Your task to perform on an android device: Open calendar and show me the fourth week of next month Image 0: 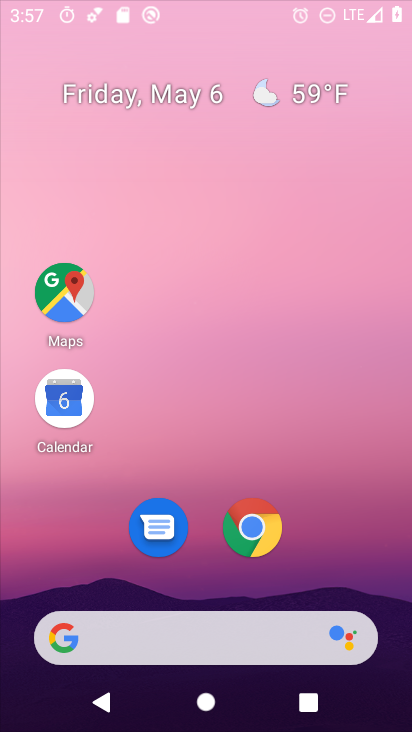
Step 0: click (283, 119)
Your task to perform on an android device: Open calendar and show me the fourth week of next month Image 1: 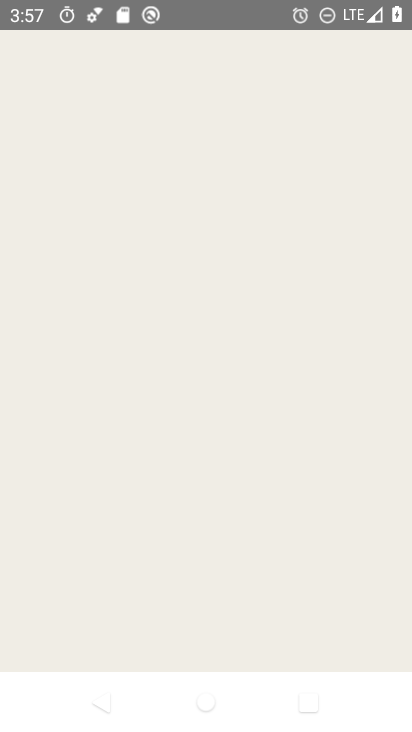
Step 1: drag from (339, 516) to (308, 140)
Your task to perform on an android device: Open calendar and show me the fourth week of next month Image 2: 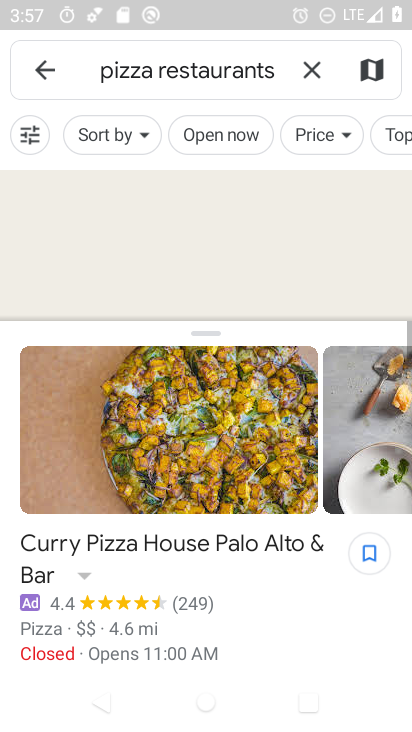
Step 2: press home button
Your task to perform on an android device: Open calendar and show me the fourth week of next month Image 3: 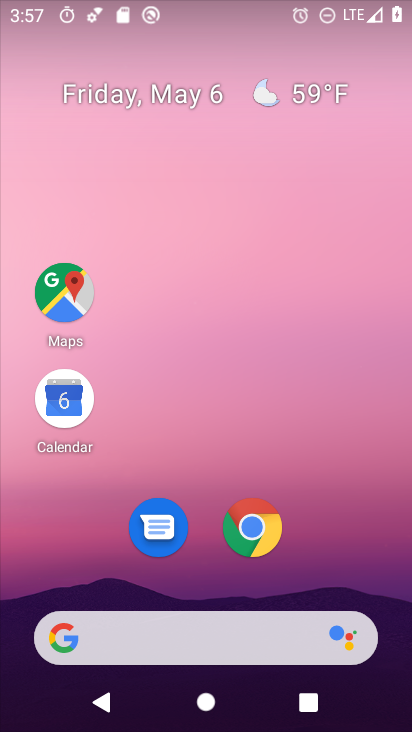
Step 3: drag from (357, 557) to (316, 120)
Your task to perform on an android device: Open calendar and show me the fourth week of next month Image 4: 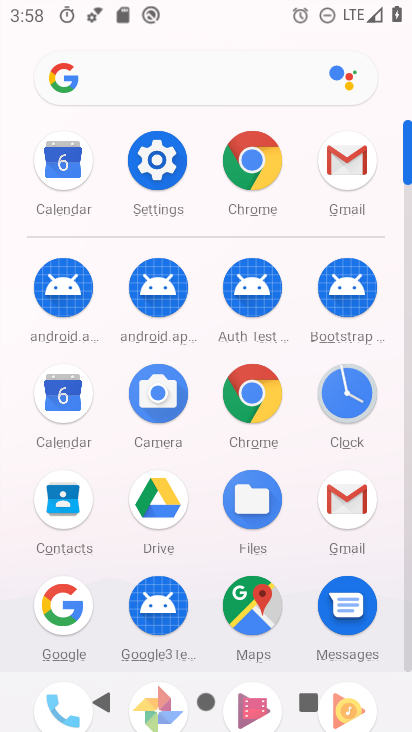
Step 4: click (71, 390)
Your task to perform on an android device: Open calendar and show me the fourth week of next month Image 5: 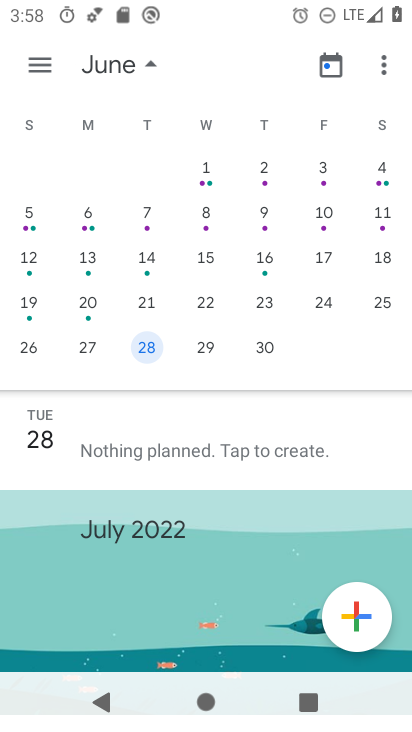
Step 5: task complete